Your task to perform on an android device: turn off location history Image 0: 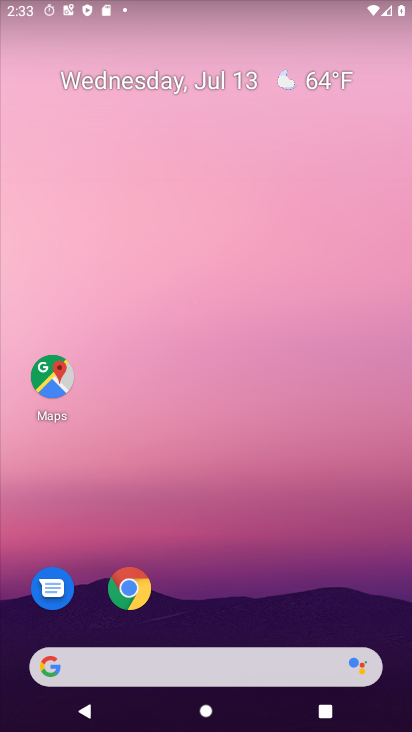
Step 0: click (194, 308)
Your task to perform on an android device: turn off location history Image 1: 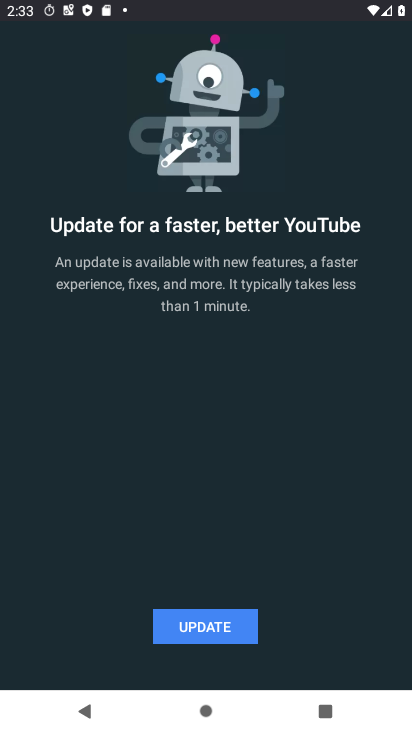
Step 1: press home button
Your task to perform on an android device: turn off location history Image 2: 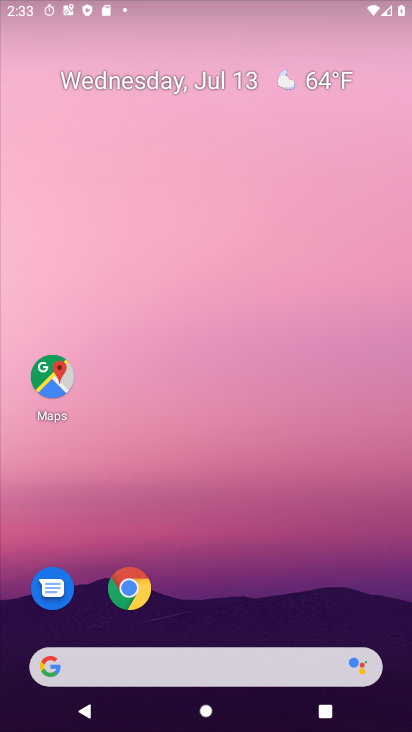
Step 2: drag from (200, 487) to (186, 273)
Your task to perform on an android device: turn off location history Image 3: 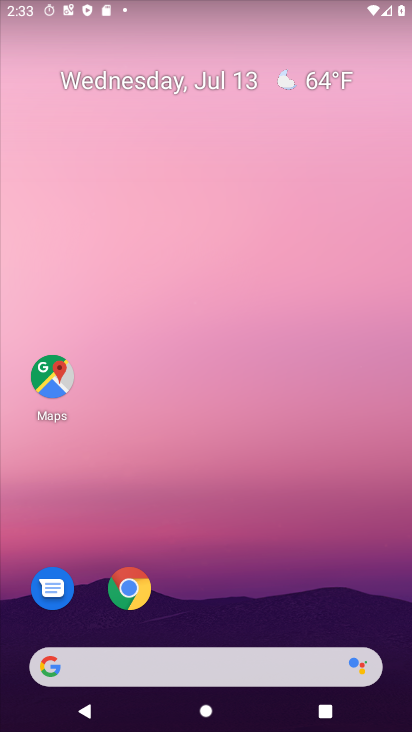
Step 3: drag from (247, 608) to (245, 344)
Your task to perform on an android device: turn off location history Image 4: 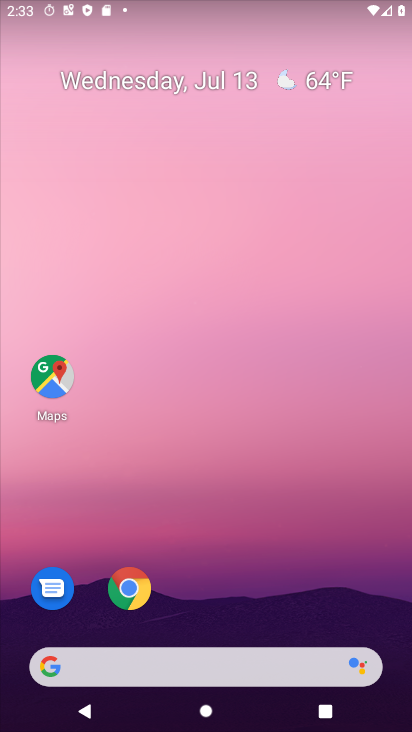
Step 4: drag from (193, 659) to (184, 323)
Your task to perform on an android device: turn off location history Image 5: 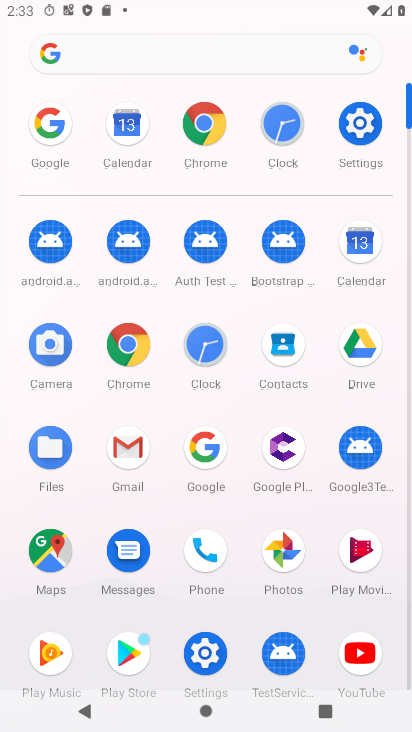
Step 5: click (356, 119)
Your task to perform on an android device: turn off location history Image 6: 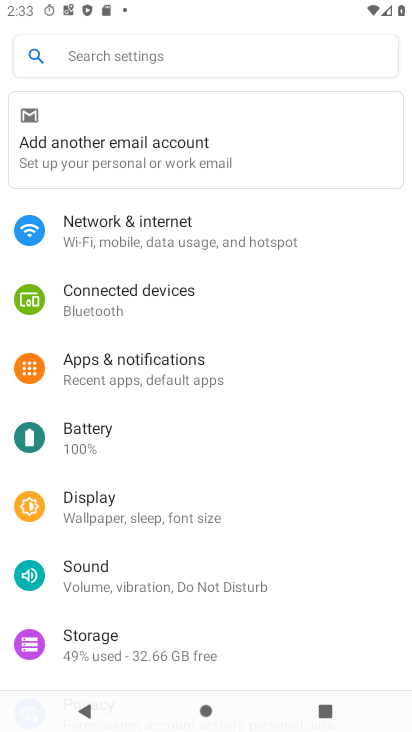
Step 6: drag from (86, 616) to (86, 343)
Your task to perform on an android device: turn off location history Image 7: 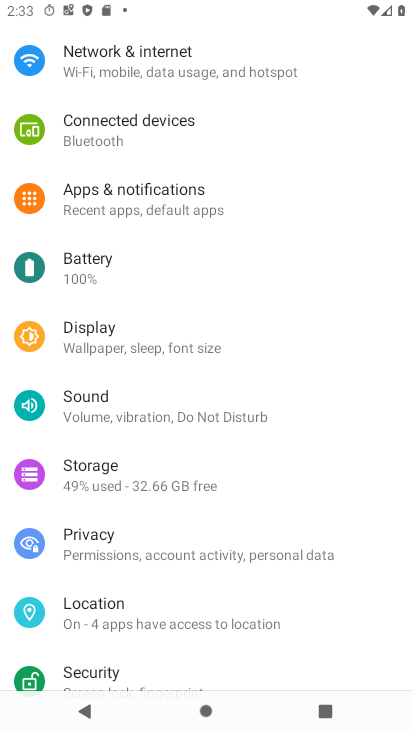
Step 7: click (127, 616)
Your task to perform on an android device: turn off location history Image 8: 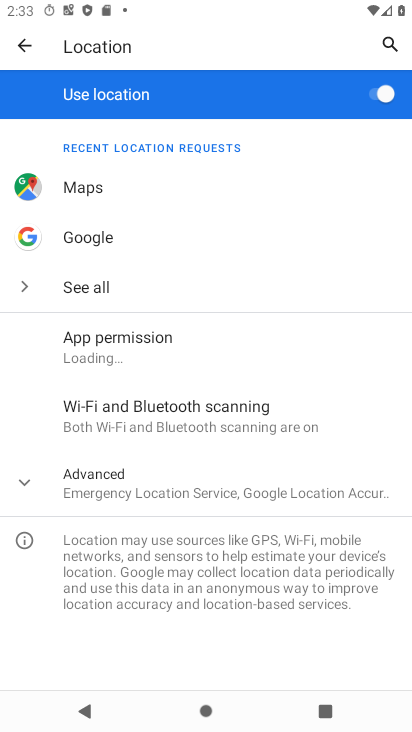
Step 8: click (99, 478)
Your task to perform on an android device: turn off location history Image 9: 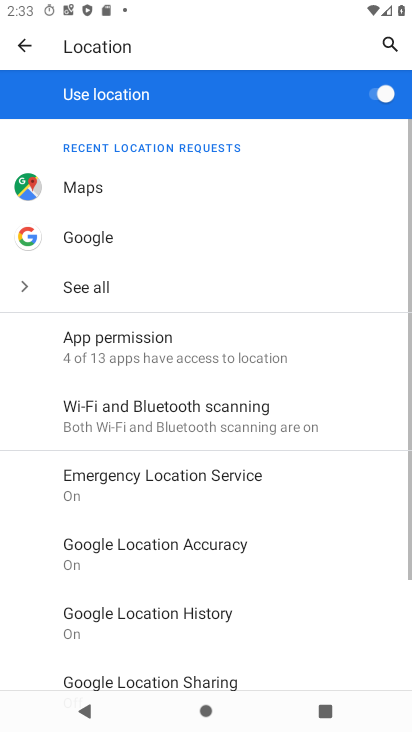
Step 9: click (137, 612)
Your task to perform on an android device: turn off location history Image 10: 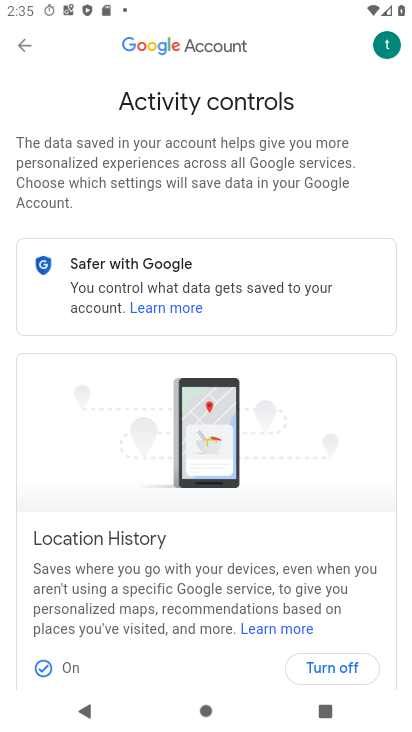
Step 10: click (322, 668)
Your task to perform on an android device: turn off location history Image 11: 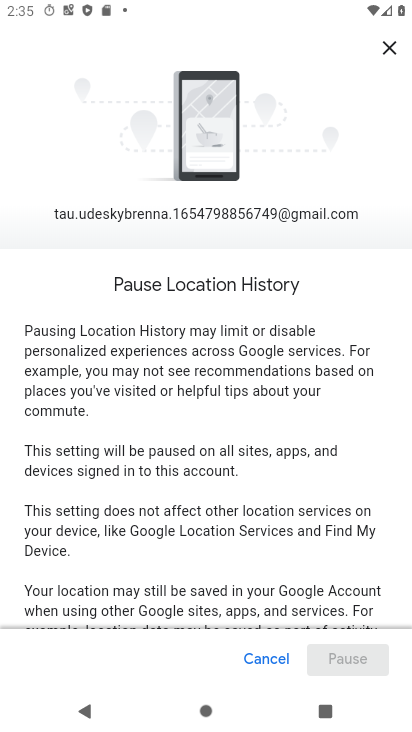
Step 11: drag from (318, 612) to (300, 377)
Your task to perform on an android device: turn off location history Image 12: 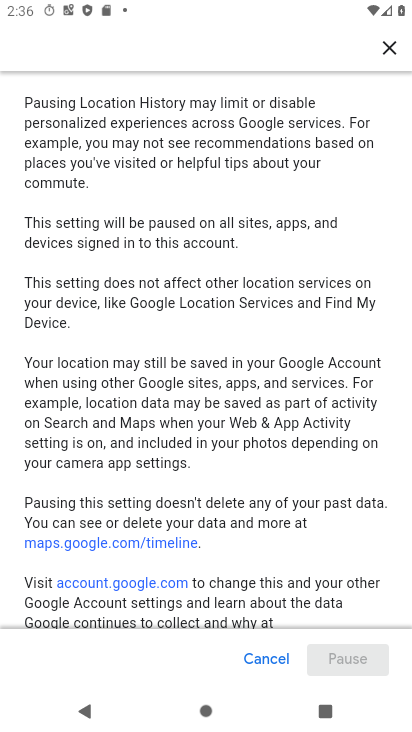
Step 12: click (348, 661)
Your task to perform on an android device: turn off location history Image 13: 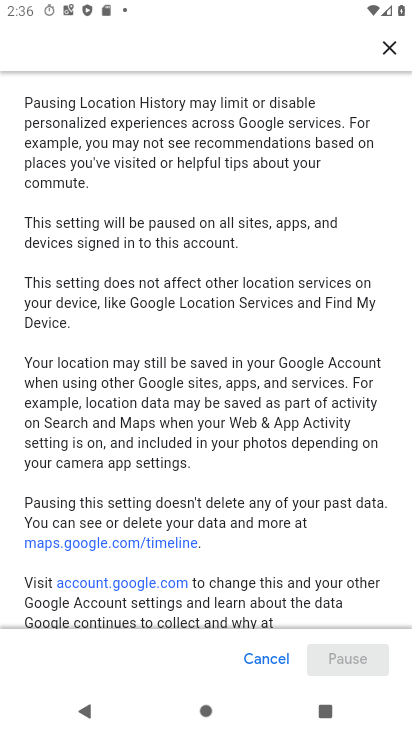
Step 13: drag from (330, 590) to (330, 302)
Your task to perform on an android device: turn off location history Image 14: 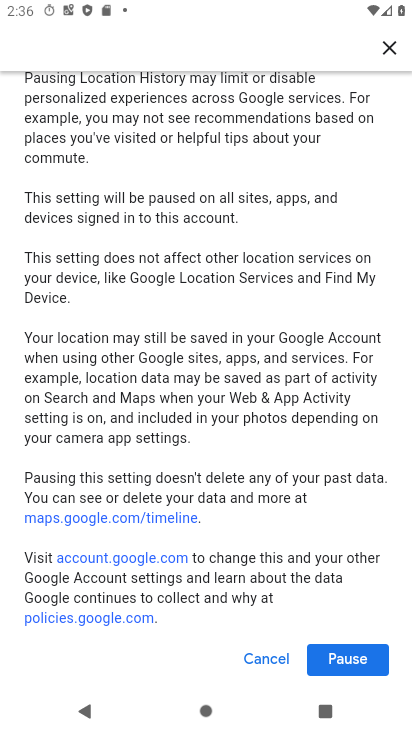
Step 14: click (344, 656)
Your task to perform on an android device: turn off location history Image 15: 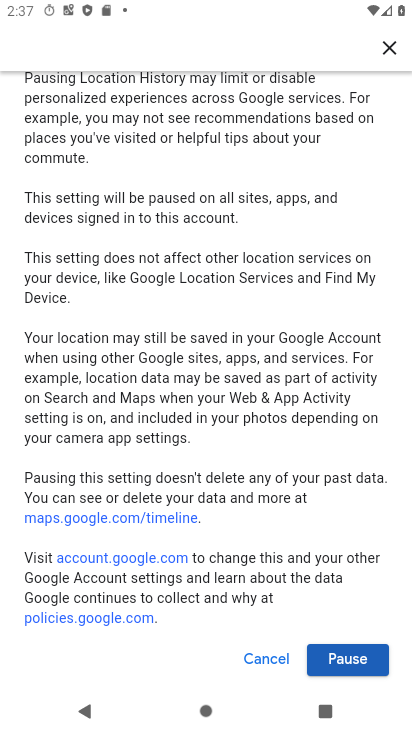
Step 15: click (344, 656)
Your task to perform on an android device: turn off location history Image 16: 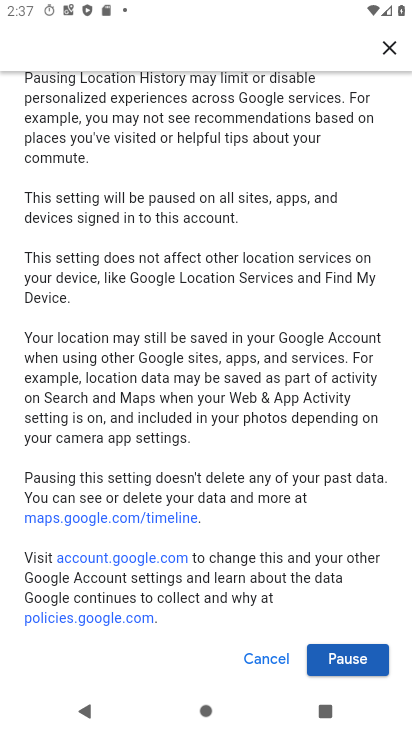
Step 16: click (351, 659)
Your task to perform on an android device: turn off location history Image 17: 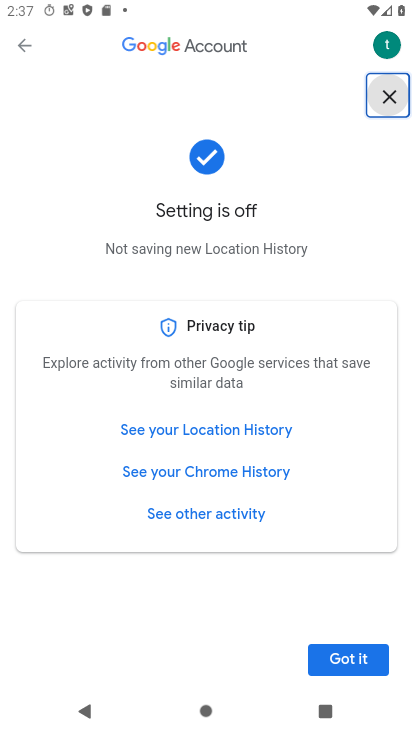
Step 17: click (351, 660)
Your task to perform on an android device: turn off location history Image 18: 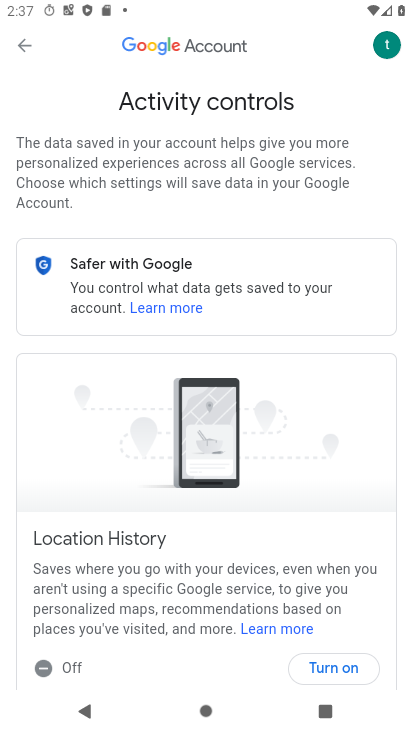
Step 18: task complete